Your task to perform on an android device: Open settings Image 0: 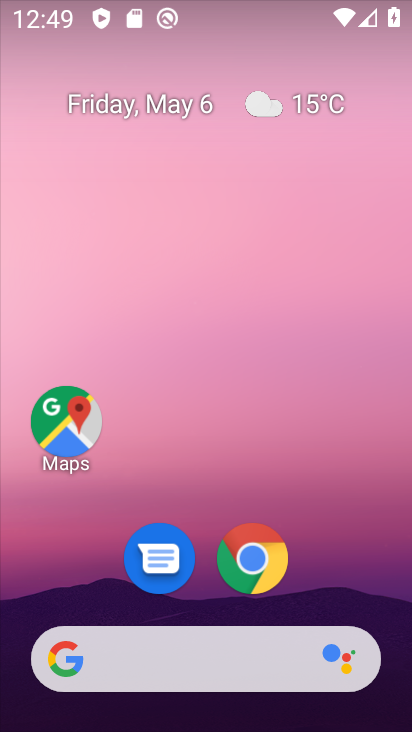
Step 0: drag from (234, 728) to (219, 215)
Your task to perform on an android device: Open settings Image 1: 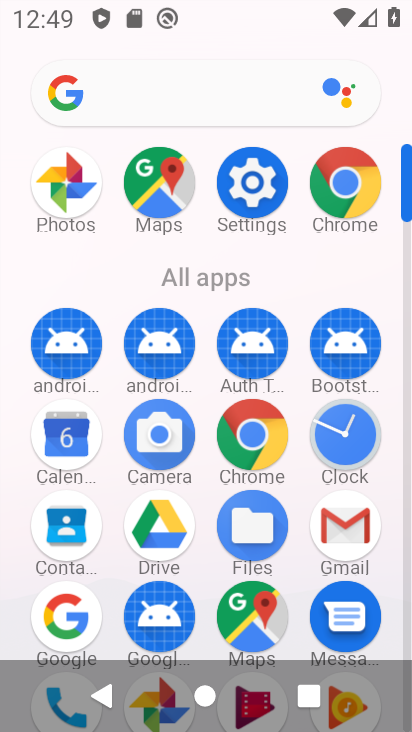
Step 1: click (251, 178)
Your task to perform on an android device: Open settings Image 2: 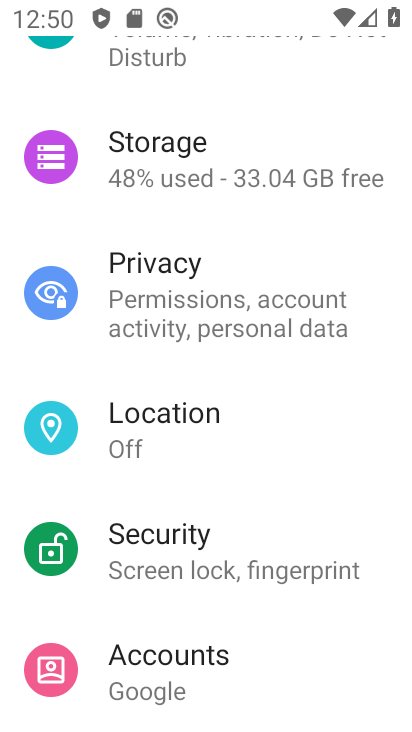
Step 2: task complete